Your task to perform on an android device: Go to Android settings Image 0: 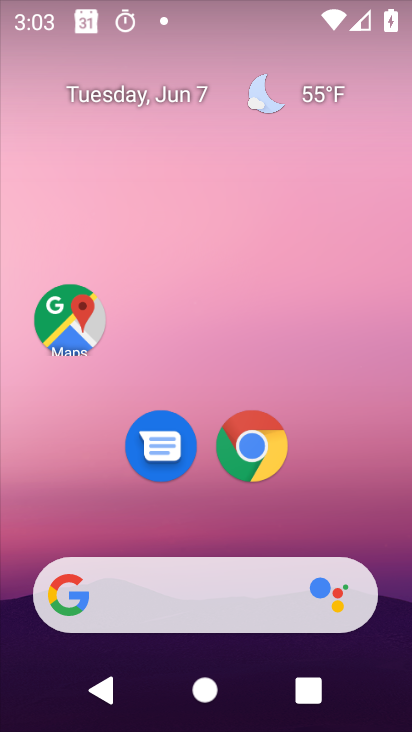
Step 0: drag from (213, 507) to (388, 0)
Your task to perform on an android device: Go to Android settings Image 1: 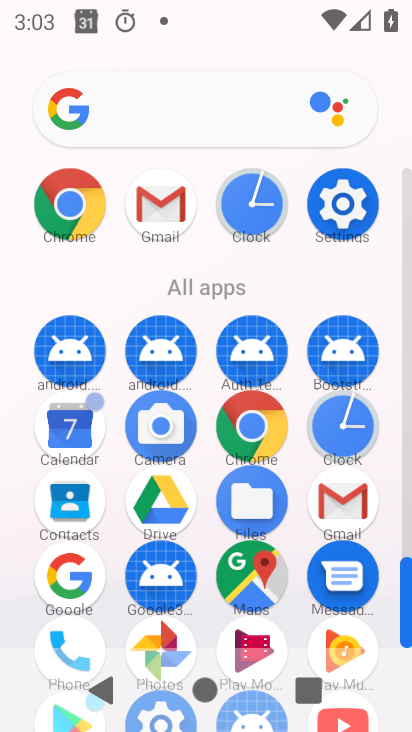
Step 1: click (349, 213)
Your task to perform on an android device: Go to Android settings Image 2: 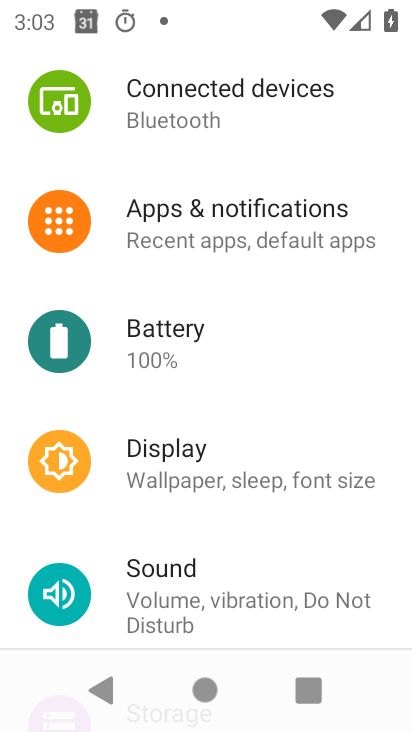
Step 2: drag from (257, 605) to (357, 17)
Your task to perform on an android device: Go to Android settings Image 3: 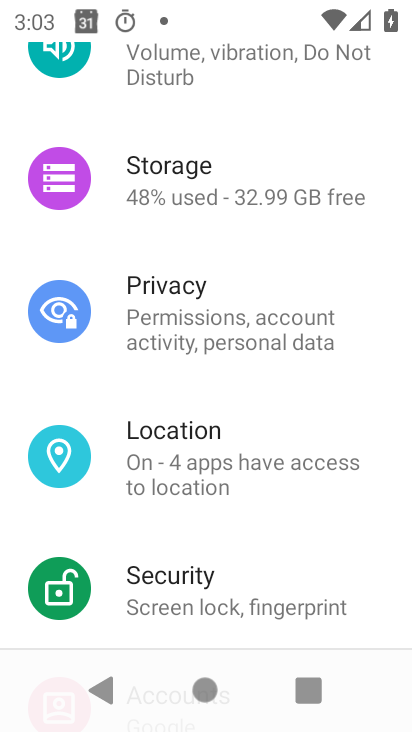
Step 3: drag from (263, 527) to (326, 95)
Your task to perform on an android device: Go to Android settings Image 4: 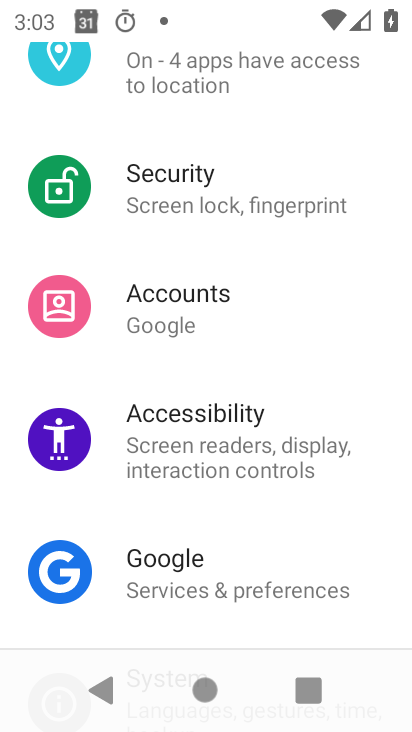
Step 4: drag from (188, 600) to (326, 9)
Your task to perform on an android device: Go to Android settings Image 5: 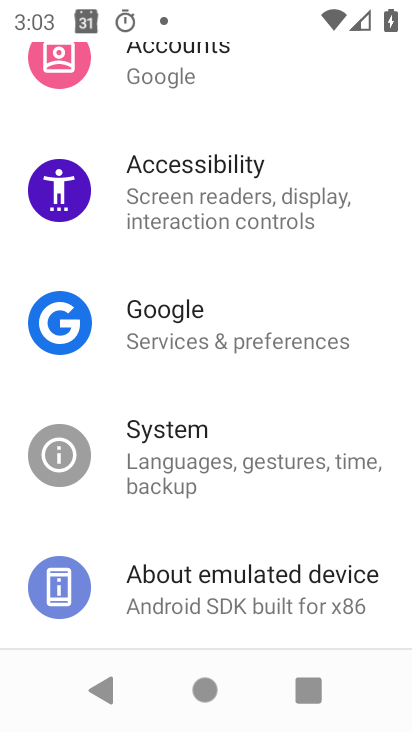
Step 5: drag from (272, 548) to (326, 137)
Your task to perform on an android device: Go to Android settings Image 6: 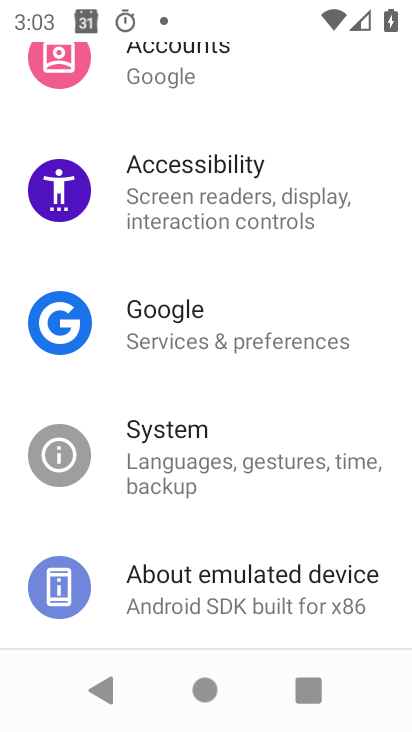
Step 6: click (204, 589)
Your task to perform on an android device: Go to Android settings Image 7: 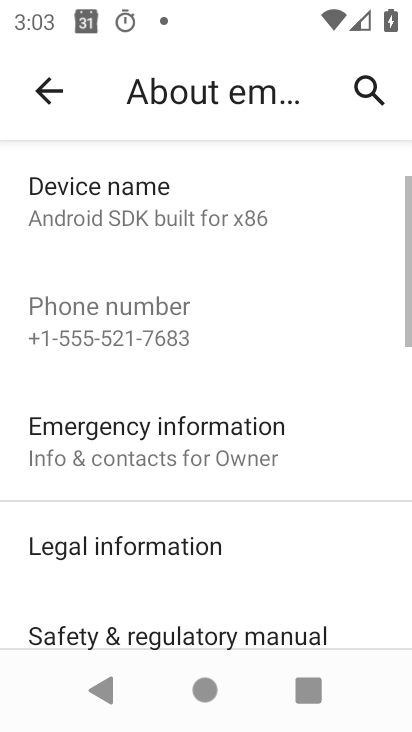
Step 7: task complete